Your task to perform on an android device: Show me productivity apps on the Play Store Image 0: 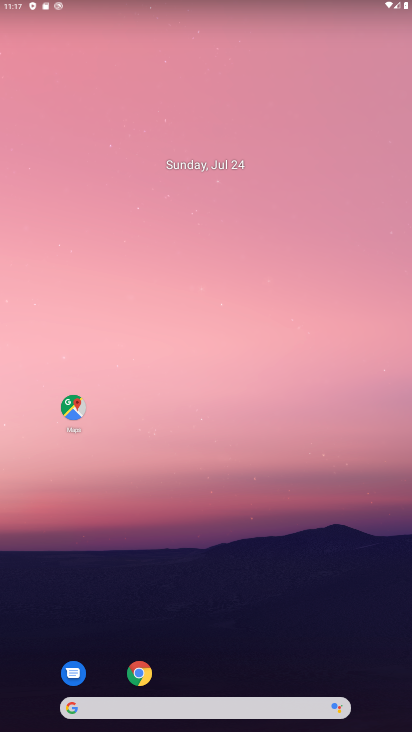
Step 0: press home button
Your task to perform on an android device: Show me productivity apps on the Play Store Image 1: 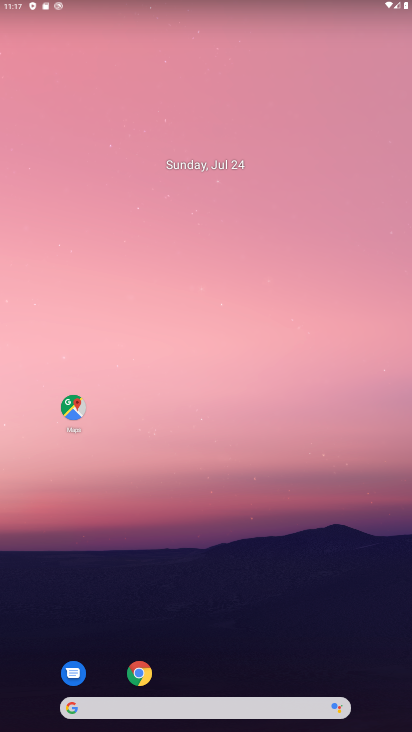
Step 1: drag from (282, 639) to (222, 237)
Your task to perform on an android device: Show me productivity apps on the Play Store Image 2: 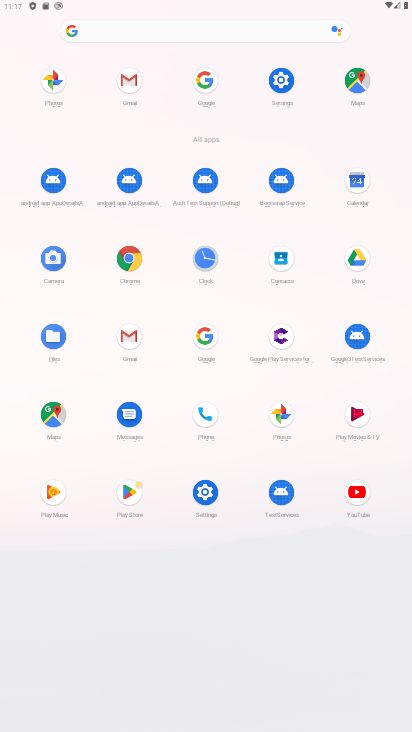
Step 2: click (128, 484)
Your task to perform on an android device: Show me productivity apps on the Play Store Image 3: 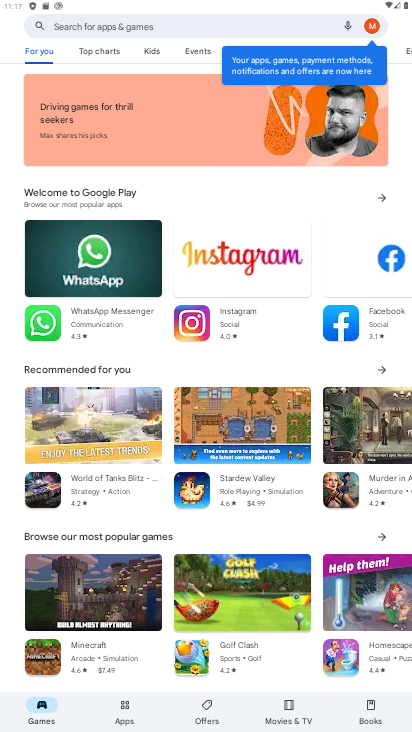
Step 3: click (128, 719)
Your task to perform on an android device: Show me productivity apps on the Play Store Image 4: 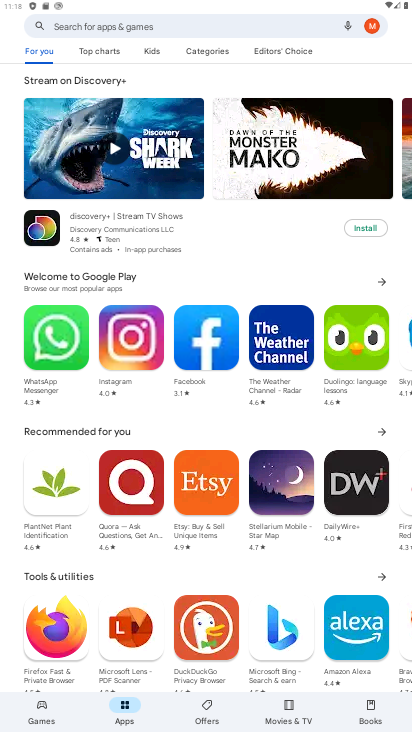
Step 4: click (222, 52)
Your task to perform on an android device: Show me productivity apps on the Play Store Image 5: 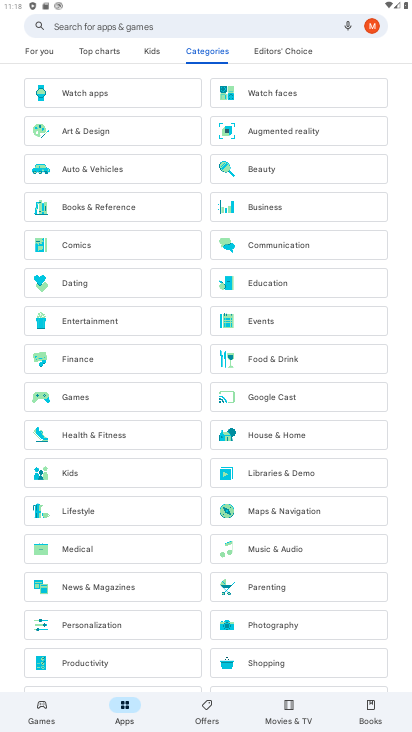
Step 5: click (97, 666)
Your task to perform on an android device: Show me productivity apps on the Play Store Image 6: 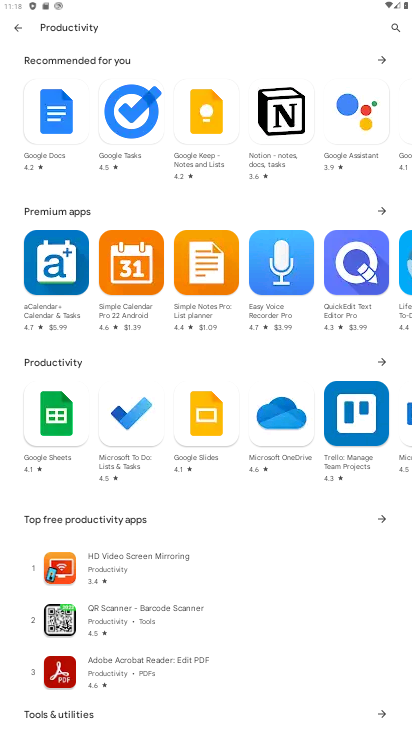
Step 6: click (386, 353)
Your task to perform on an android device: Show me productivity apps on the Play Store Image 7: 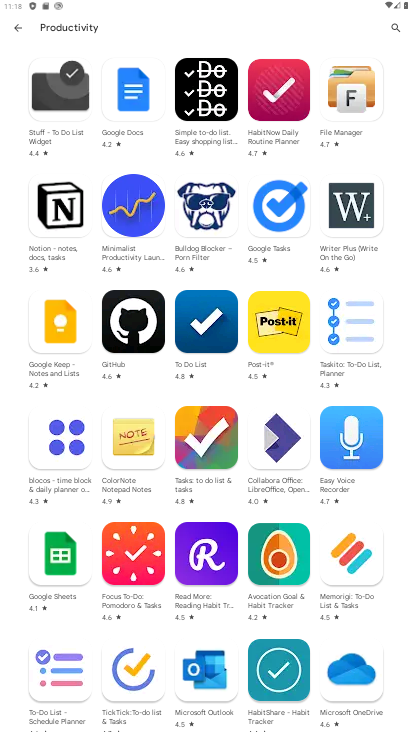
Step 7: task complete